Your task to perform on an android device: empty trash in google photos Image 0: 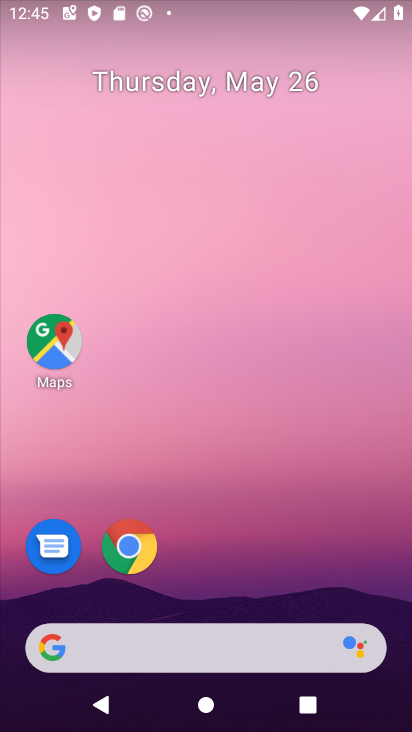
Step 0: drag from (297, 572) to (264, 101)
Your task to perform on an android device: empty trash in google photos Image 1: 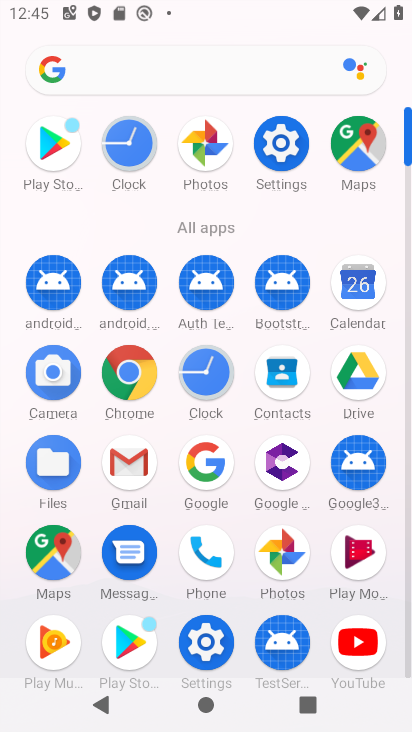
Step 1: click (296, 536)
Your task to perform on an android device: empty trash in google photos Image 2: 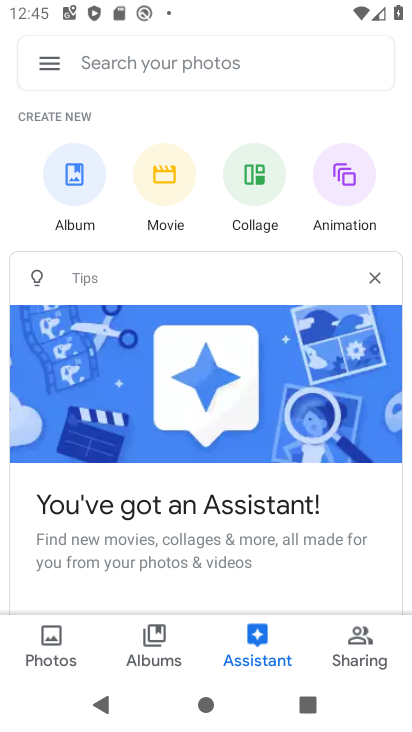
Step 2: click (65, 55)
Your task to perform on an android device: empty trash in google photos Image 3: 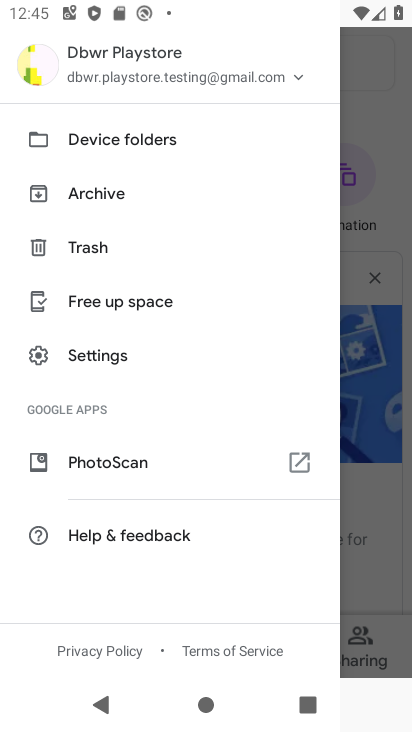
Step 3: click (57, 251)
Your task to perform on an android device: empty trash in google photos Image 4: 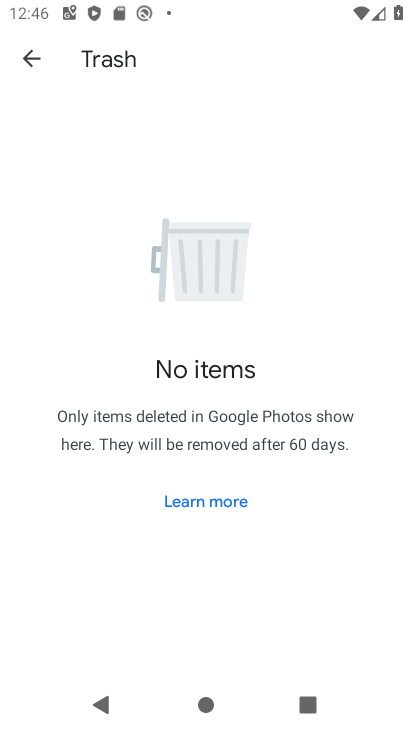
Step 4: task complete